Your task to perform on an android device: change alarm snooze length Image 0: 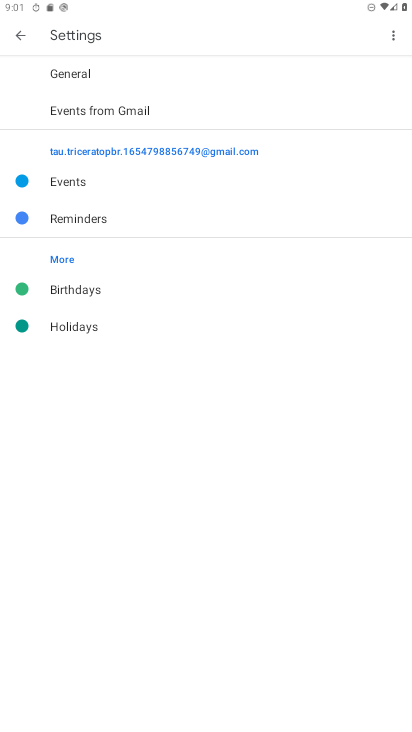
Step 0: press home button
Your task to perform on an android device: change alarm snooze length Image 1: 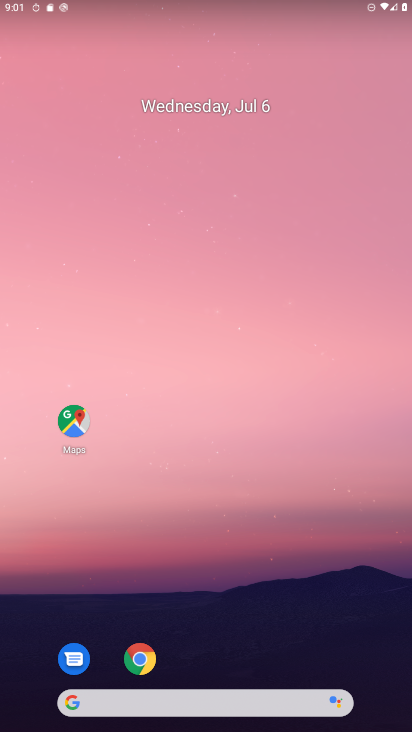
Step 1: drag from (342, 652) to (341, 268)
Your task to perform on an android device: change alarm snooze length Image 2: 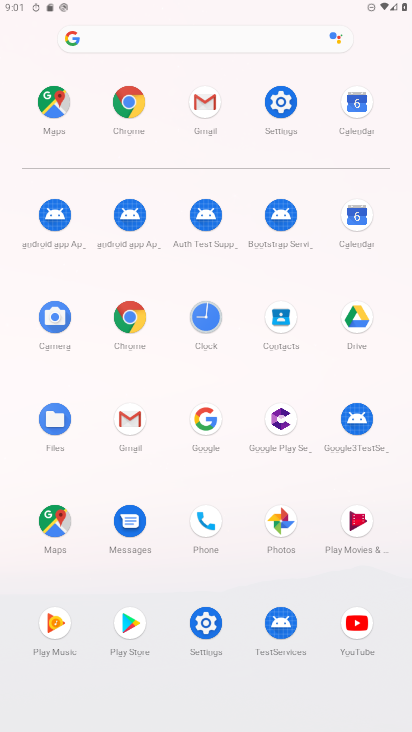
Step 2: click (216, 325)
Your task to perform on an android device: change alarm snooze length Image 3: 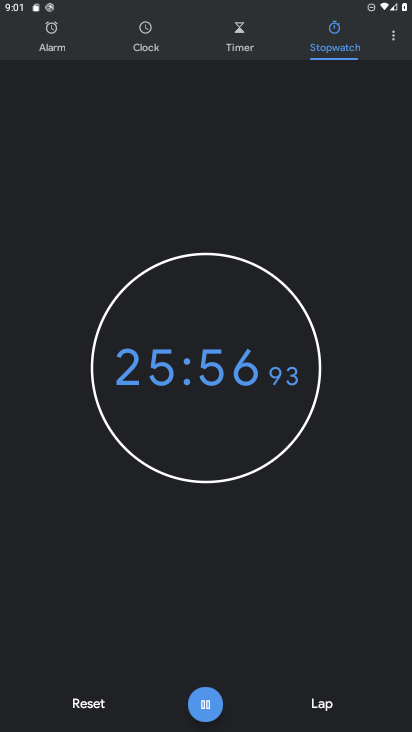
Step 3: click (394, 40)
Your task to perform on an android device: change alarm snooze length Image 4: 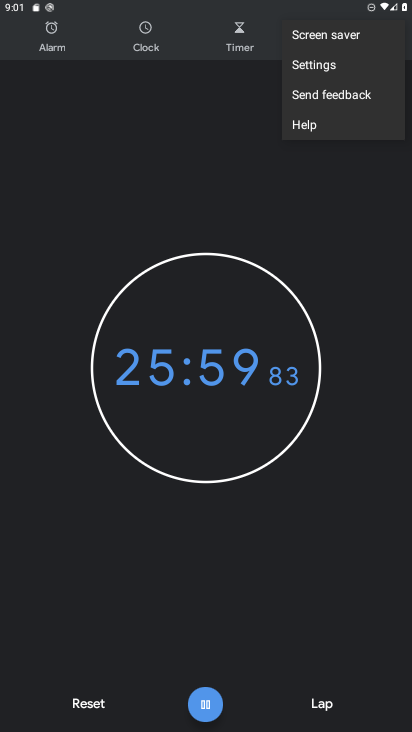
Step 4: click (334, 79)
Your task to perform on an android device: change alarm snooze length Image 5: 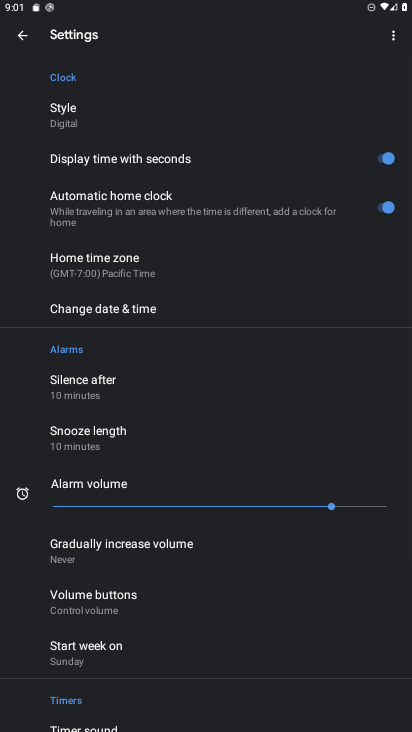
Step 5: drag from (298, 441) to (298, 302)
Your task to perform on an android device: change alarm snooze length Image 6: 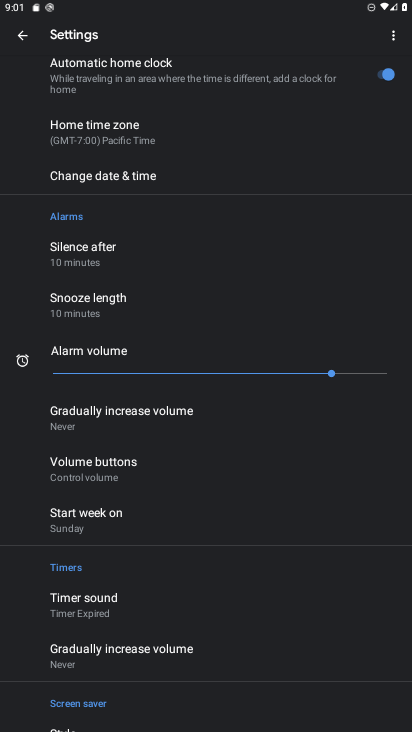
Step 6: drag from (302, 473) to (308, 361)
Your task to perform on an android device: change alarm snooze length Image 7: 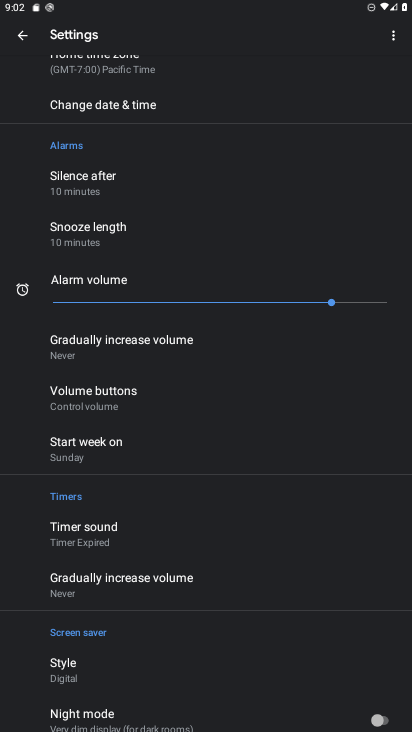
Step 7: drag from (308, 486) to (304, 379)
Your task to perform on an android device: change alarm snooze length Image 8: 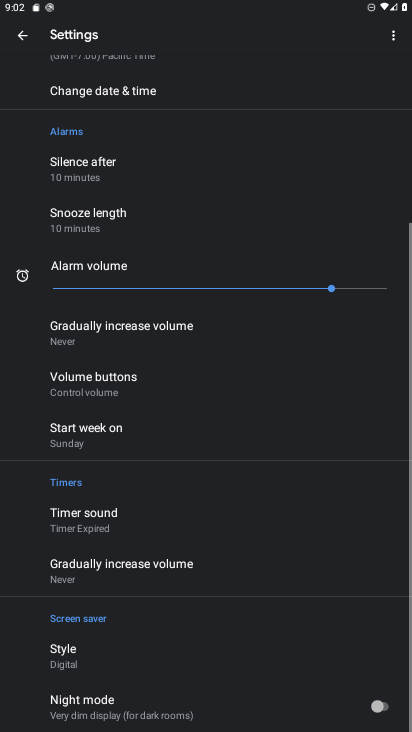
Step 8: drag from (296, 352) to (296, 429)
Your task to perform on an android device: change alarm snooze length Image 9: 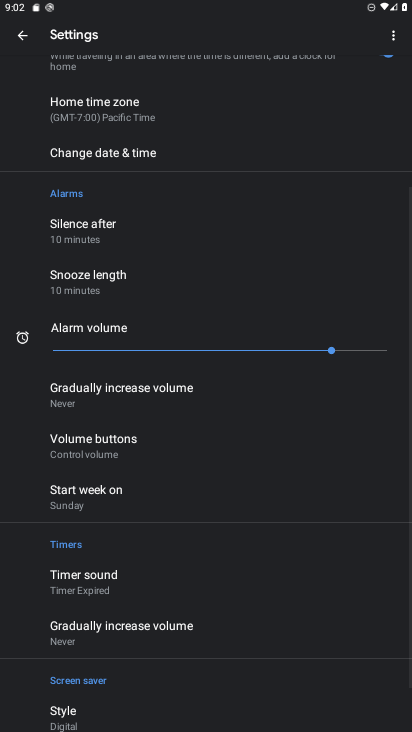
Step 9: drag from (280, 287) to (284, 428)
Your task to perform on an android device: change alarm snooze length Image 10: 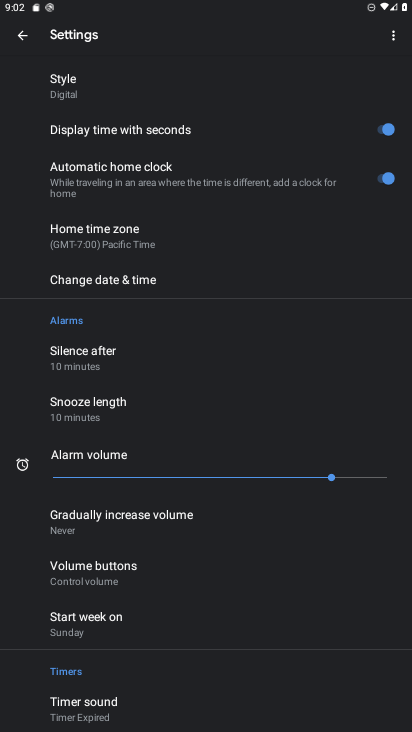
Step 10: click (104, 406)
Your task to perform on an android device: change alarm snooze length Image 11: 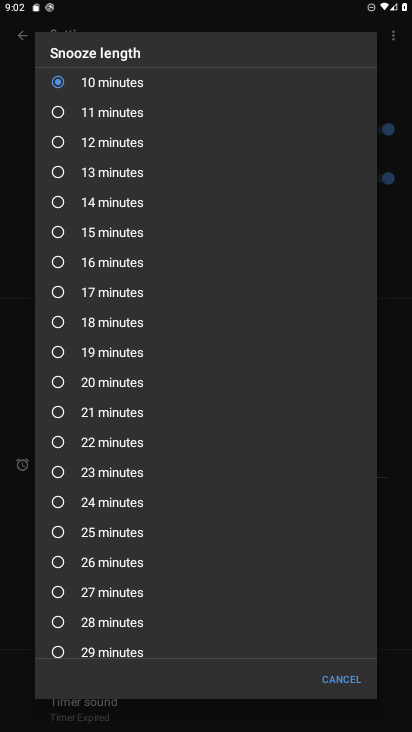
Step 11: click (160, 354)
Your task to perform on an android device: change alarm snooze length Image 12: 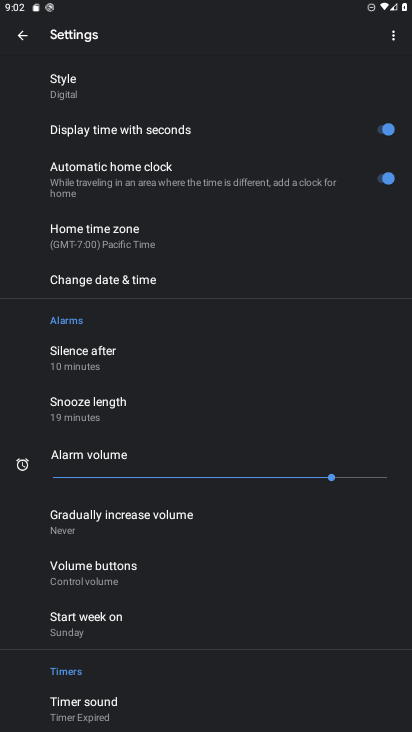
Step 12: task complete